Your task to perform on an android device: open app "Speedtest by Ookla" Image 0: 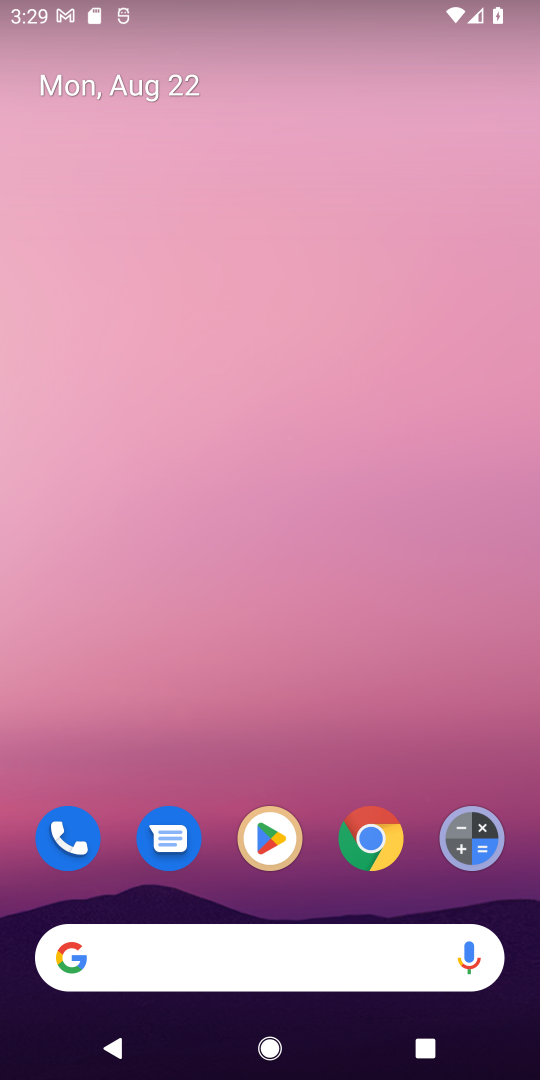
Step 0: click (275, 848)
Your task to perform on an android device: open app "Speedtest by Ookla" Image 1: 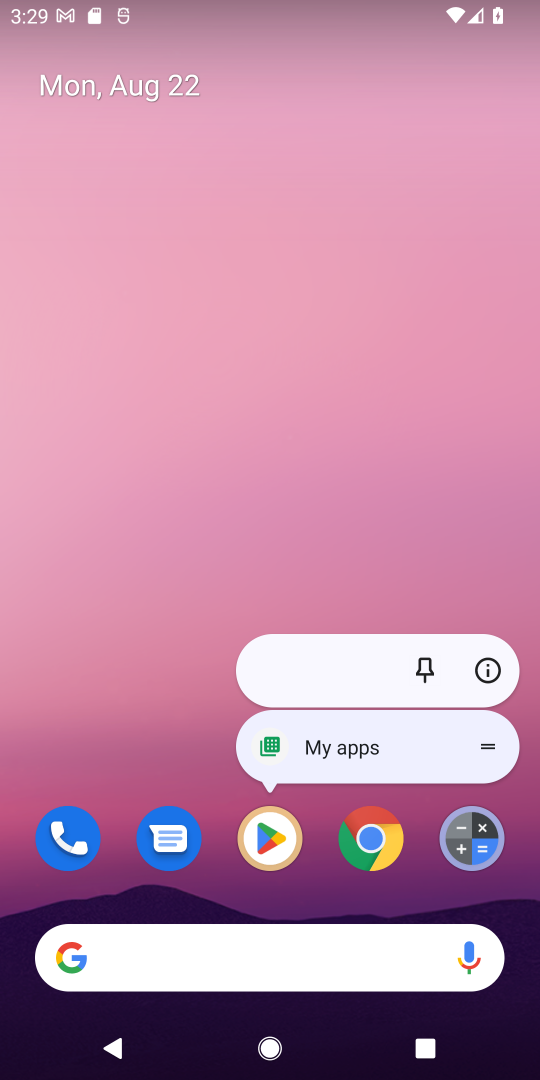
Step 1: click (263, 839)
Your task to perform on an android device: open app "Speedtest by Ookla" Image 2: 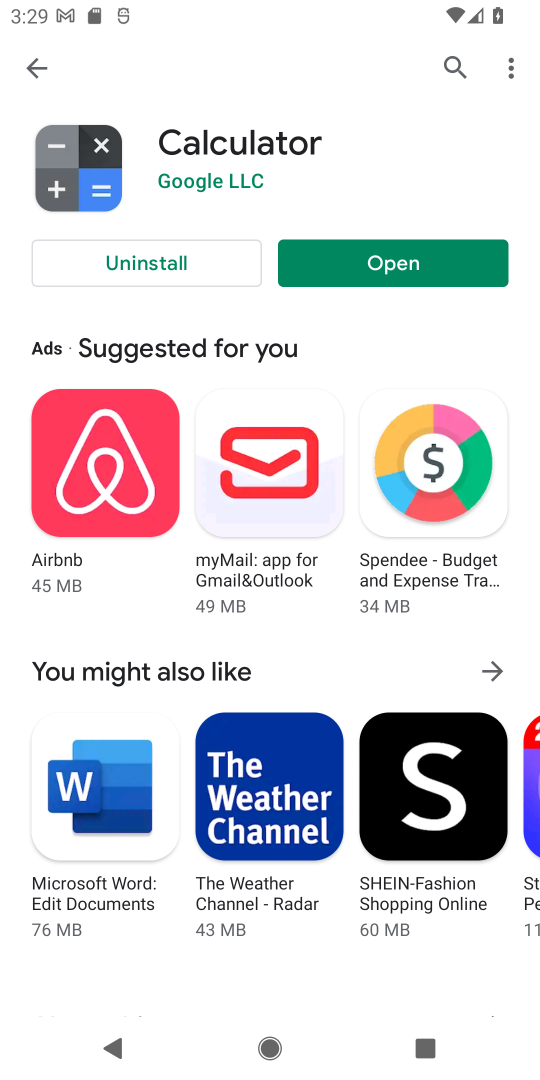
Step 2: click (450, 58)
Your task to perform on an android device: open app "Speedtest by Ookla" Image 3: 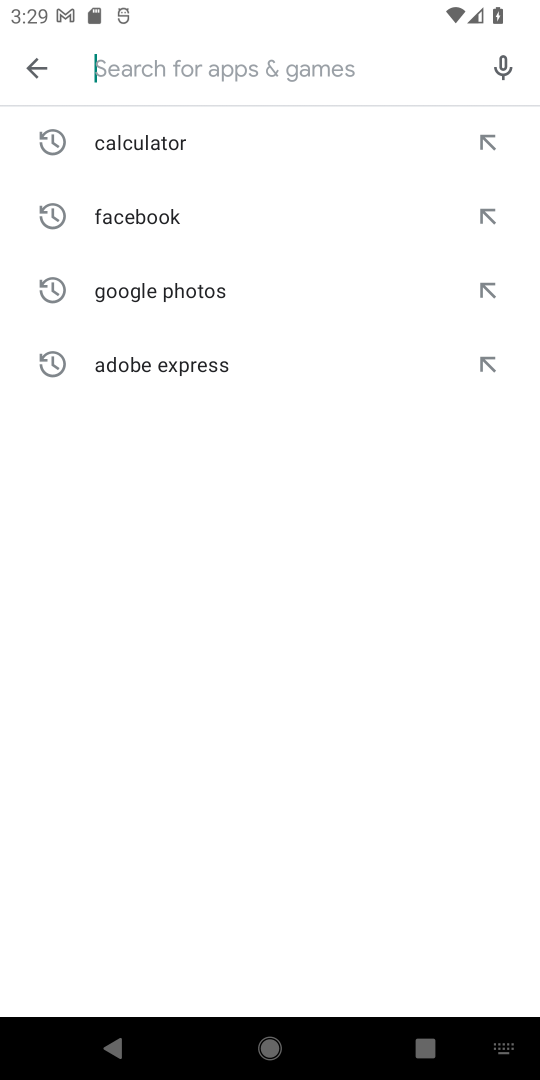
Step 3: click (267, 75)
Your task to perform on an android device: open app "Speedtest by Ookla" Image 4: 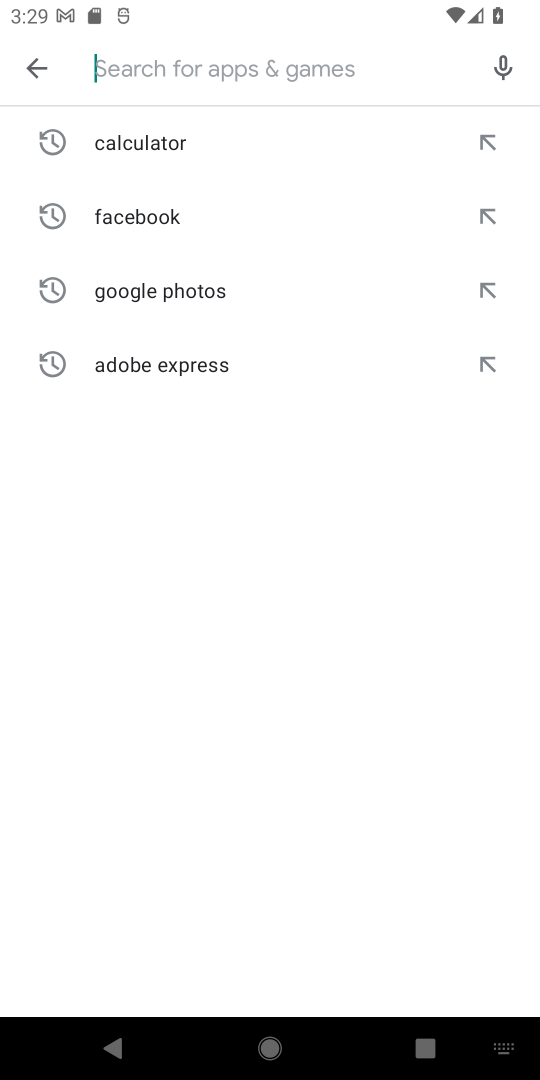
Step 4: click (215, 60)
Your task to perform on an android device: open app "Speedtest by Ookla" Image 5: 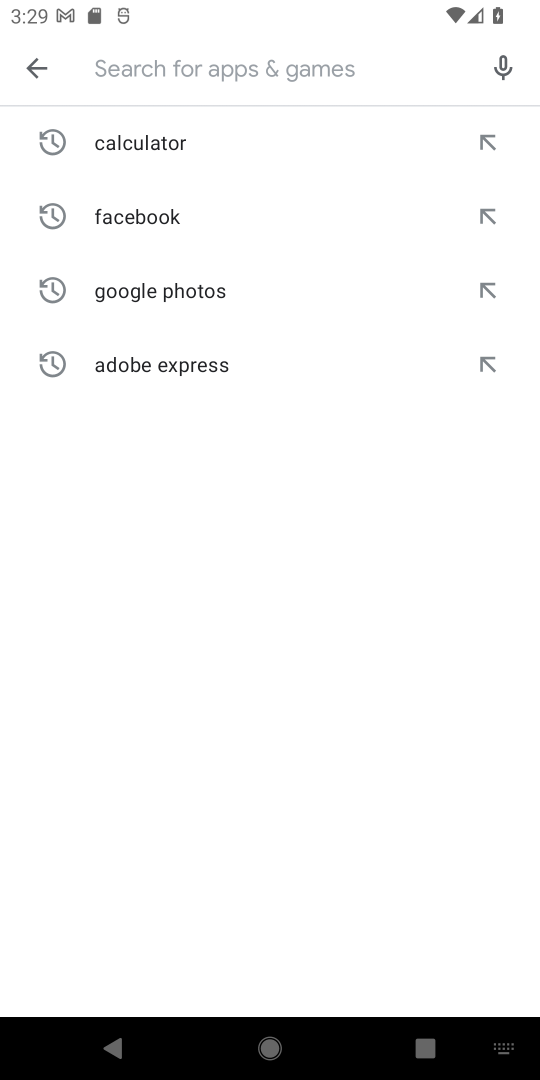
Step 5: type "Speedtest by Ookla"
Your task to perform on an android device: open app "Speedtest by Ookla" Image 6: 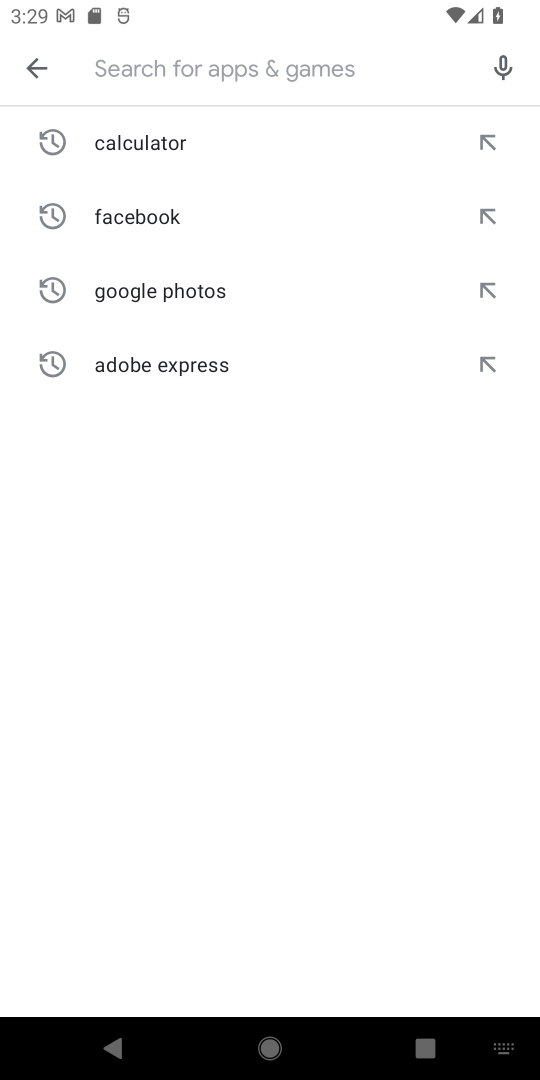
Step 6: click (353, 684)
Your task to perform on an android device: open app "Speedtest by Ookla" Image 7: 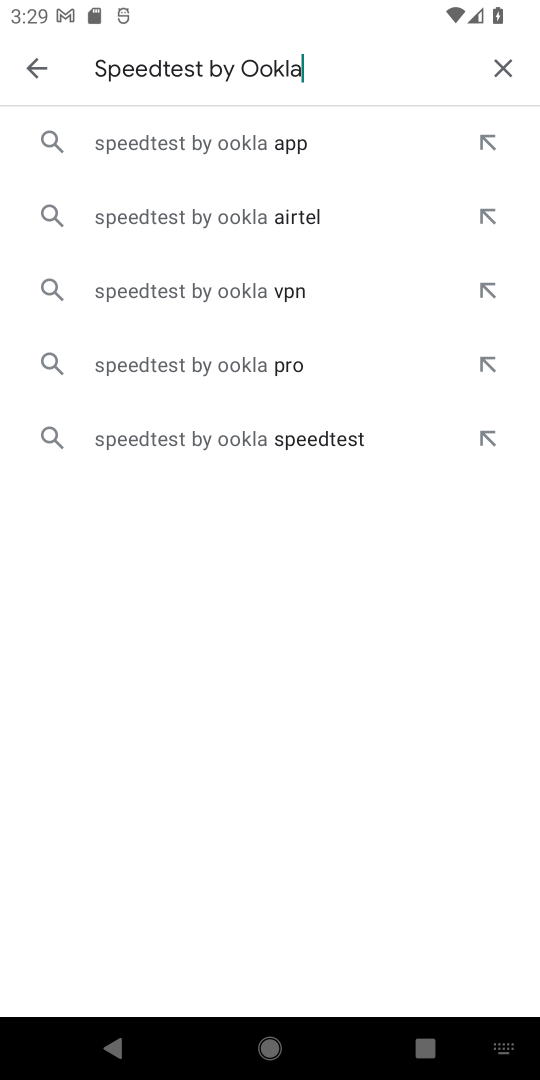
Step 7: click (277, 132)
Your task to perform on an android device: open app "Speedtest by Ookla" Image 8: 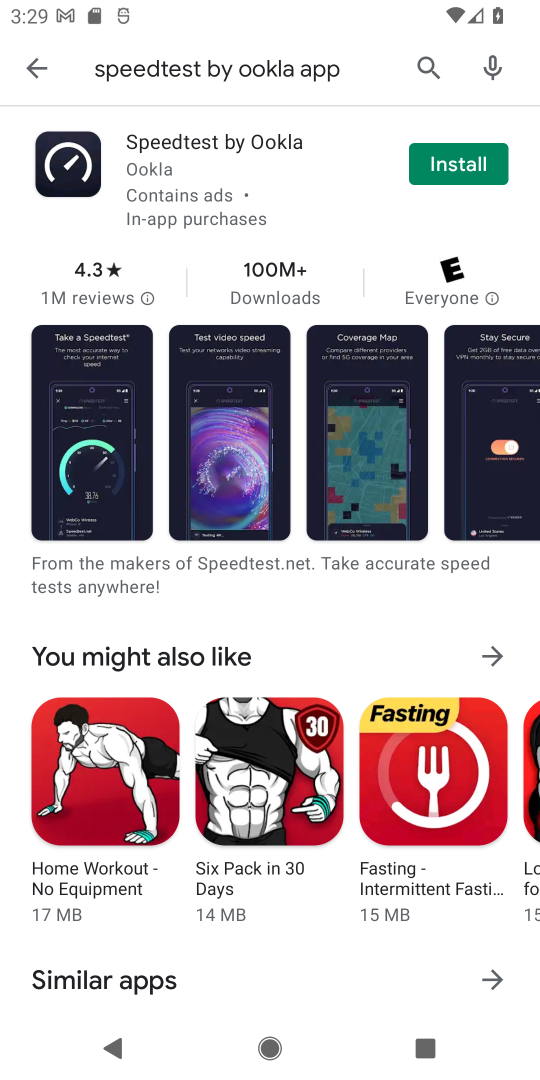
Step 8: task complete